Your task to perform on an android device: find photos in the google photos app Image 0: 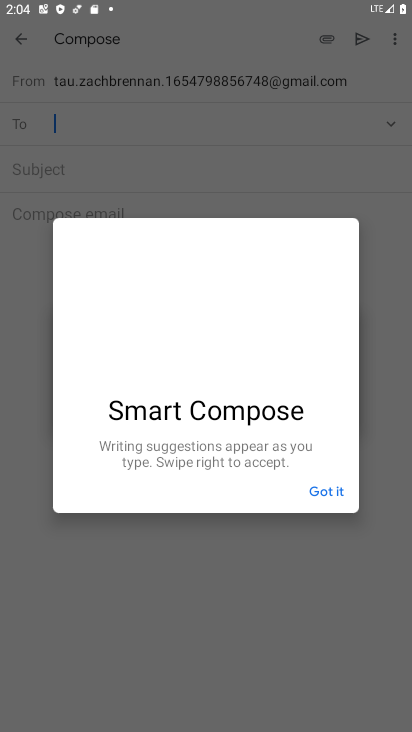
Step 0: press home button
Your task to perform on an android device: find photos in the google photos app Image 1: 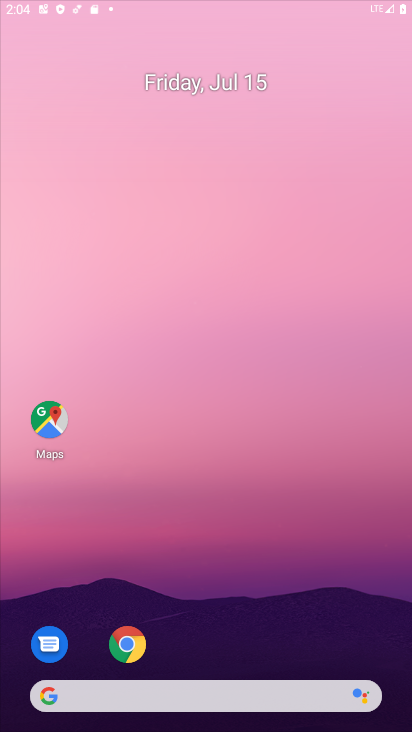
Step 1: drag from (388, 648) to (304, 63)
Your task to perform on an android device: find photos in the google photos app Image 2: 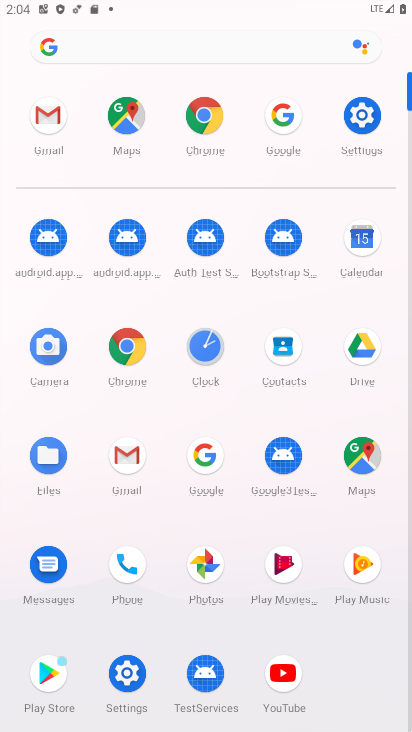
Step 2: click (194, 566)
Your task to perform on an android device: find photos in the google photos app Image 3: 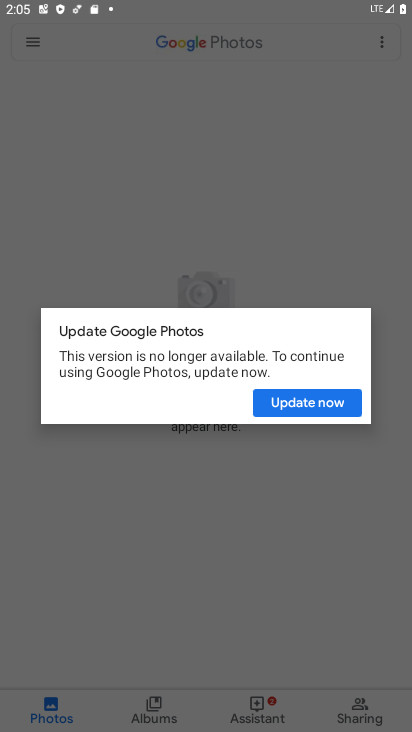
Step 3: click (324, 408)
Your task to perform on an android device: find photos in the google photos app Image 4: 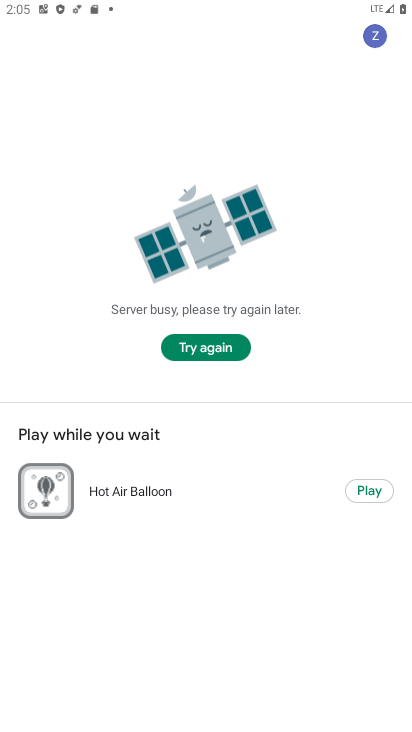
Step 4: task complete